Your task to perform on an android device: Open Youtube and go to the subscriptions tab Image 0: 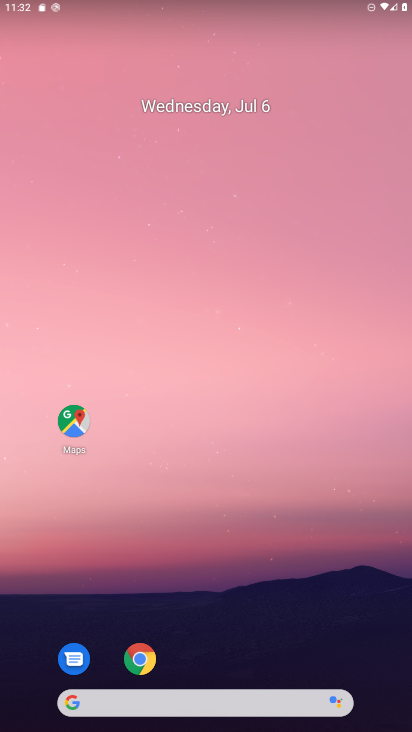
Step 0: drag from (271, 664) to (240, 22)
Your task to perform on an android device: Open Youtube and go to the subscriptions tab Image 1: 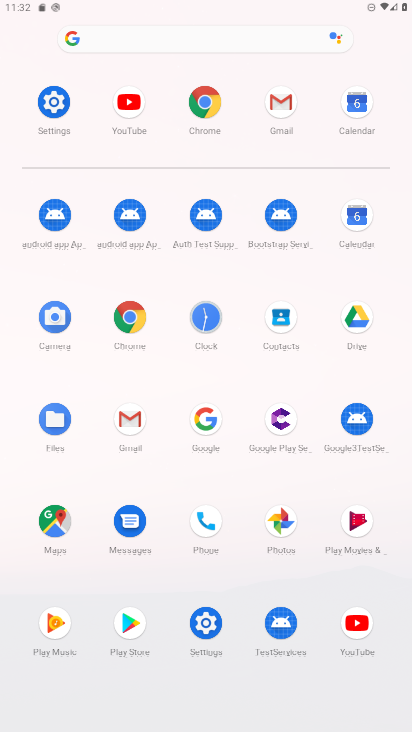
Step 1: click (119, 103)
Your task to perform on an android device: Open Youtube and go to the subscriptions tab Image 2: 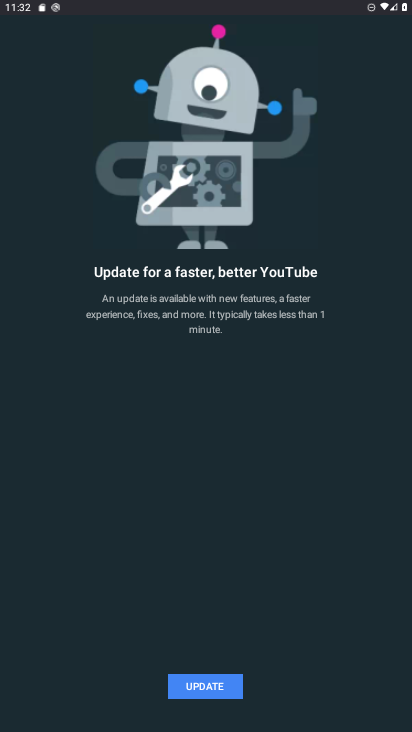
Step 2: press back button
Your task to perform on an android device: Open Youtube and go to the subscriptions tab Image 3: 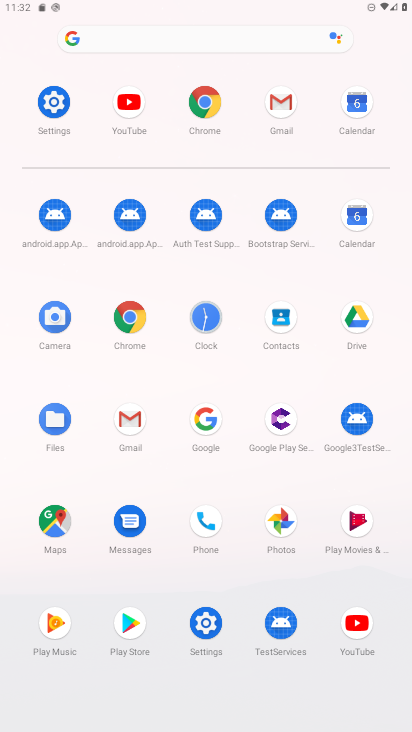
Step 3: click (341, 629)
Your task to perform on an android device: Open Youtube and go to the subscriptions tab Image 4: 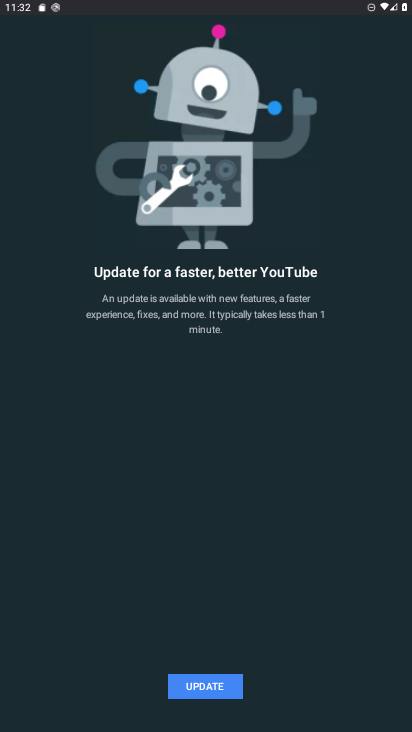
Step 4: click (234, 692)
Your task to perform on an android device: Open Youtube and go to the subscriptions tab Image 5: 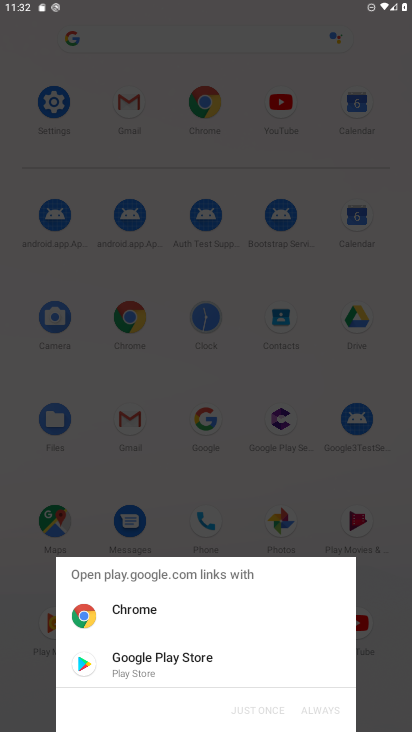
Step 5: click (152, 660)
Your task to perform on an android device: Open Youtube and go to the subscriptions tab Image 6: 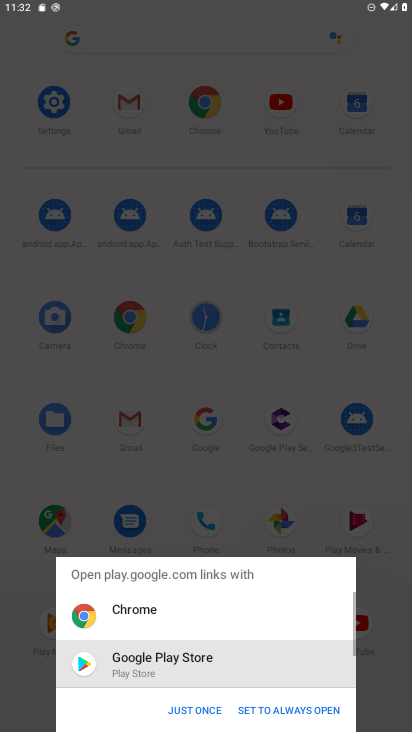
Step 6: click (181, 711)
Your task to perform on an android device: Open Youtube and go to the subscriptions tab Image 7: 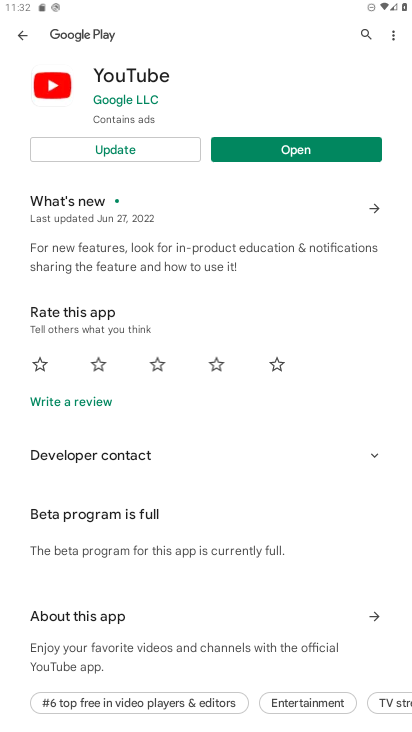
Step 7: click (93, 161)
Your task to perform on an android device: Open Youtube and go to the subscriptions tab Image 8: 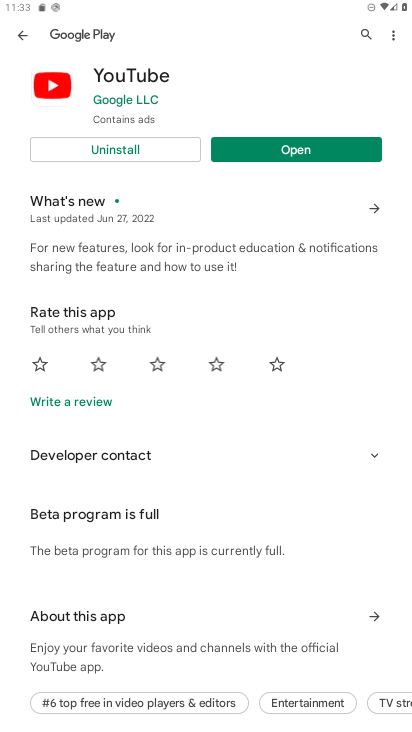
Step 8: click (307, 148)
Your task to perform on an android device: Open Youtube and go to the subscriptions tab Image 9: 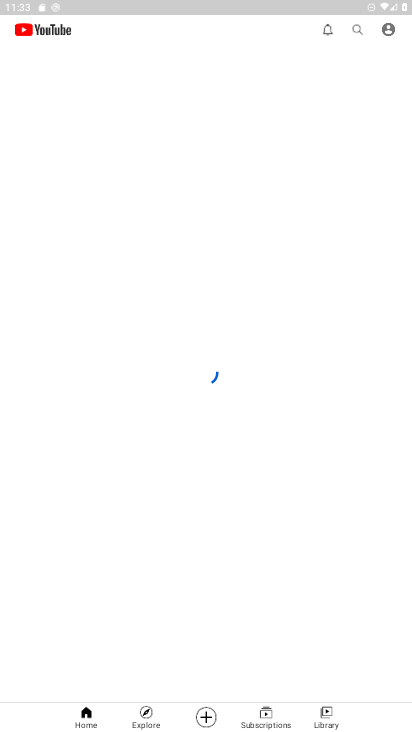
Step 9: click (236, 724)
Your task to perform on an android device: Open Youtube and go to the subscriptions tab Image 10: 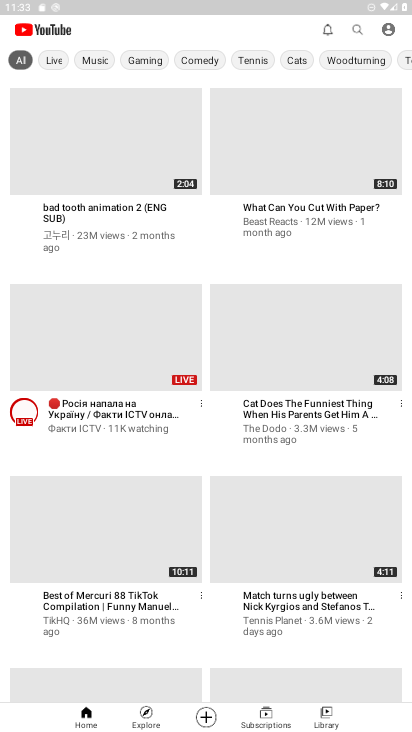
Step 10: click (256, 722)
Your task to perform on an android device: Open Youtube and go to the subscriptions tab Image 11: 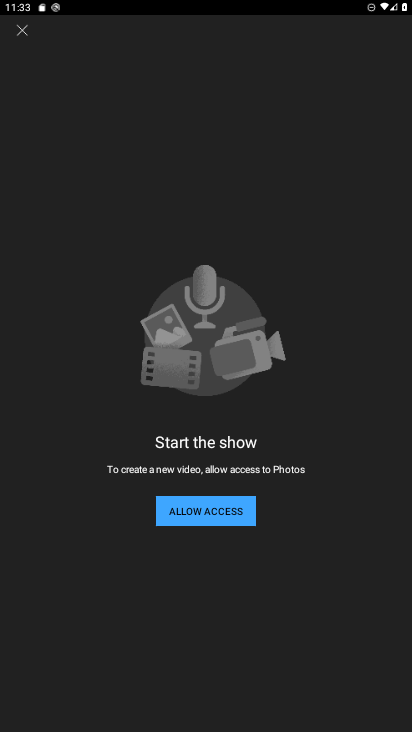
Step 11: click (24, 34)
Your task to perform on an android device: Open Youtube and go to the subscriptions tab Image 12: 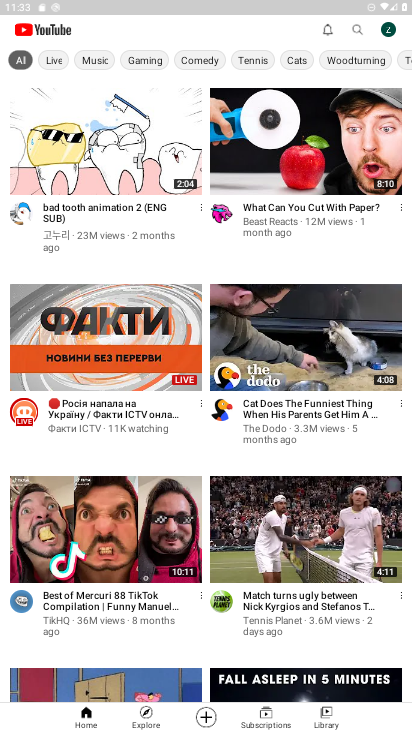
Step 12: click (270, 721)
Your task to perform on an android device: Open Youtube and go to the subscriptions tab Image 13: 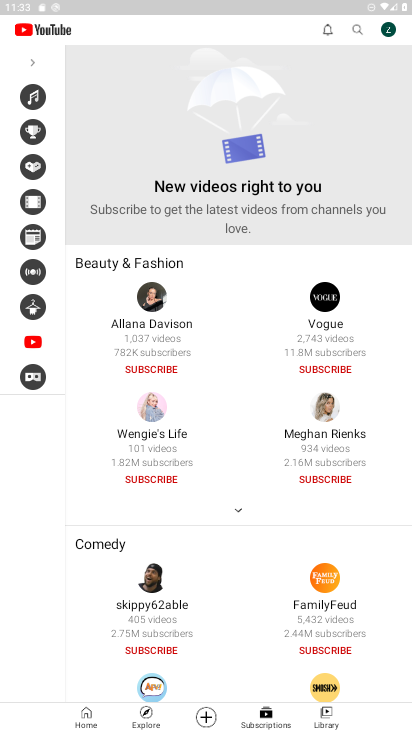
Step 13: task complete